Your task to perform on an android device: toggle data saver in the chrome app Image 0: 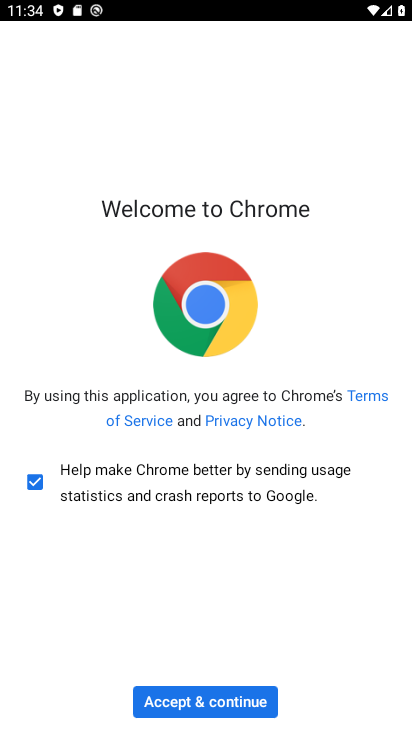
Step 0: click (256, 699)
Your task to perform on an android device: toggle data saver in the chrome app Image 1: 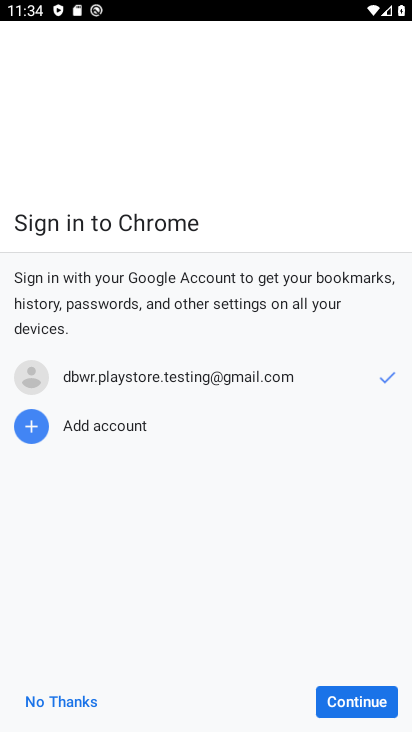
Step 1: click (365, 715)
Your task to perform on an android device: toggle data saver in the chrome app Image 2: 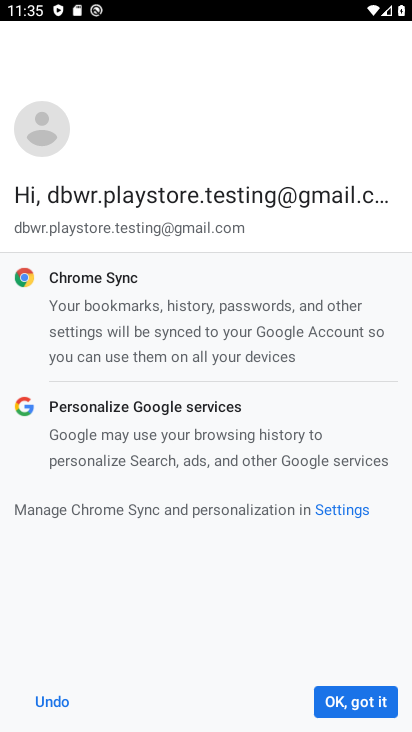
Step 2: click (369, 707)
Your task to perform on an android device: toggle data saver in the chrome app Image 3: 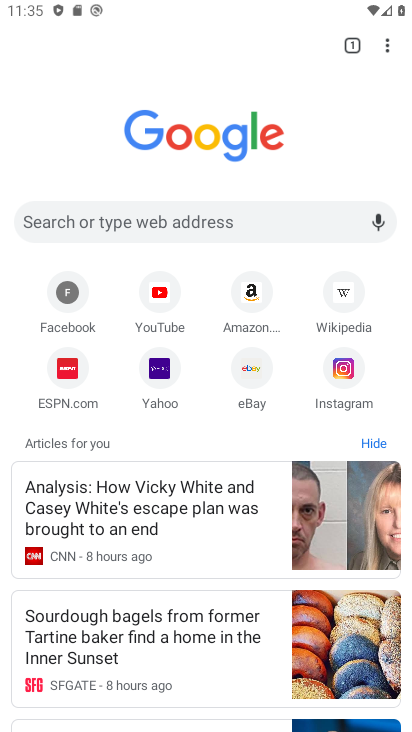
Step 3: click (397, 41)
Your task to perform on an android device: toggle data saver in the chrome app Image 4: 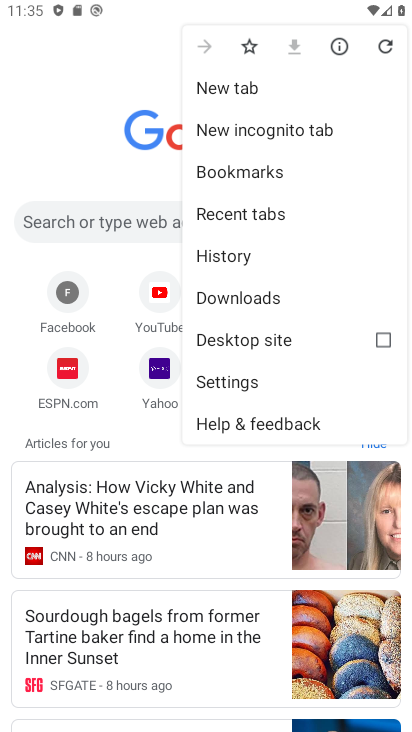
Step 4: click (265, 375)
Your task to perform on an android device: toggle data saver in the chrome app Image 5: 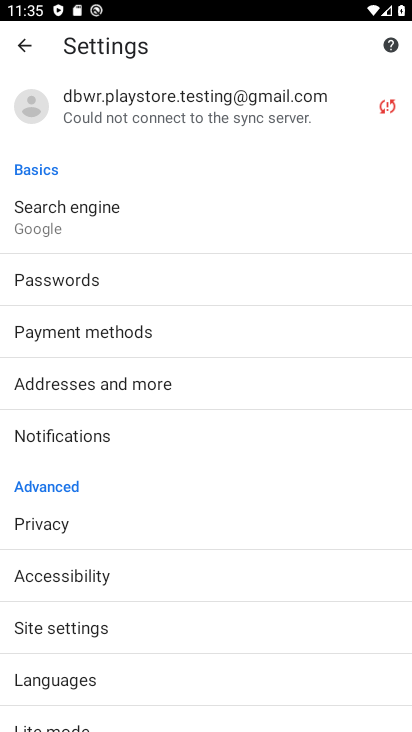
Step 5: drag from (199, 637) to (213, 220)
Your task to perform on an android device: toggle data saver in the chrome app Image 6: 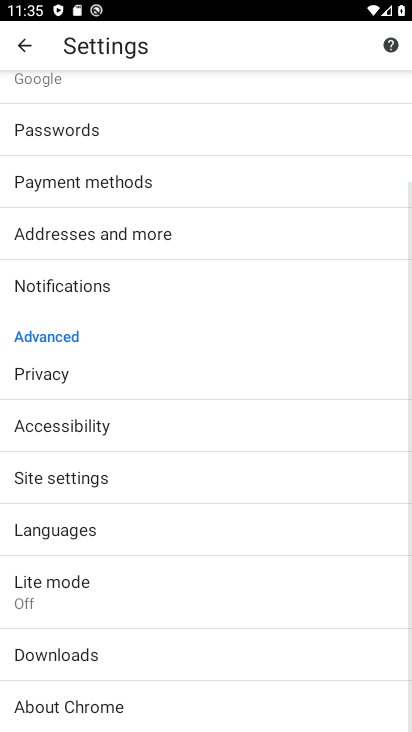
Step 6: click (193, 583)
Your task to perform on an android device: toggle data saver in the chrome app Image 7: 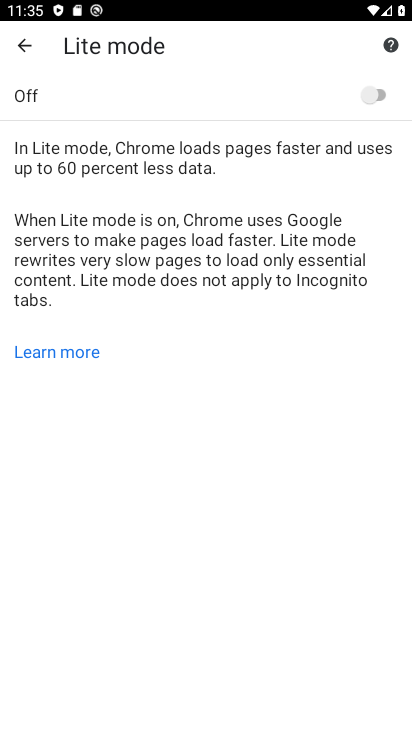
Step 7: click (363, 91)
Your task to perform on an android device: toggle data saver in the chrome app Image 8: 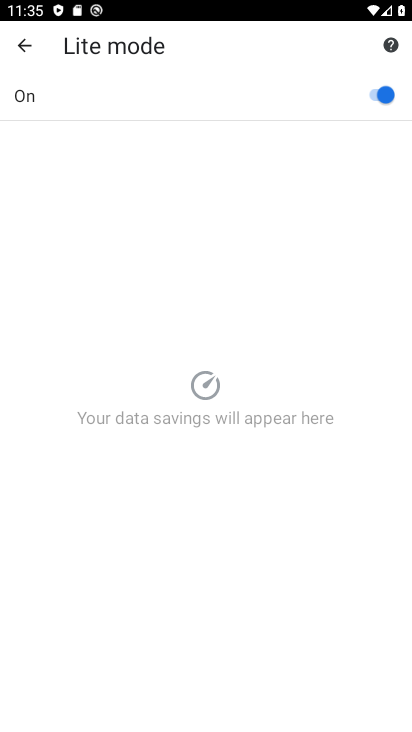
Step 8: task complete